Your task to perform on an android device: See recent photos Image 0: 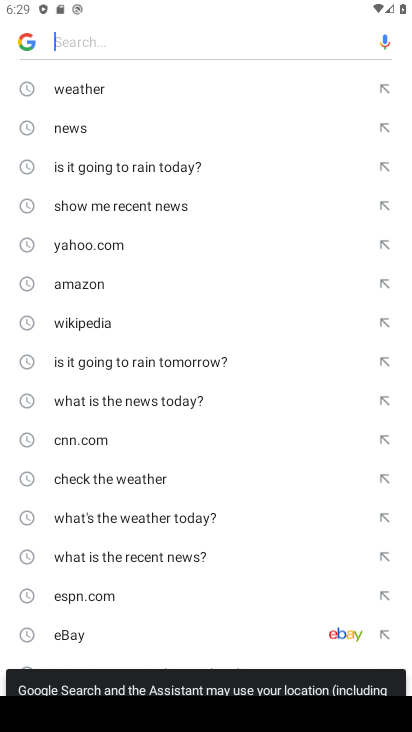
Step 0: press back button
Your task to perform on an android device: See recent photos Image 1: 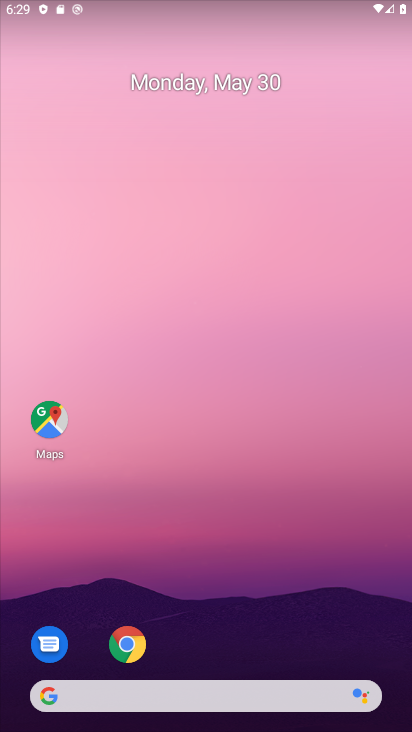
Step 1: drag from (205, 646) to (219, 66)
Your task to perform on an android device: See recent photos Image 2: 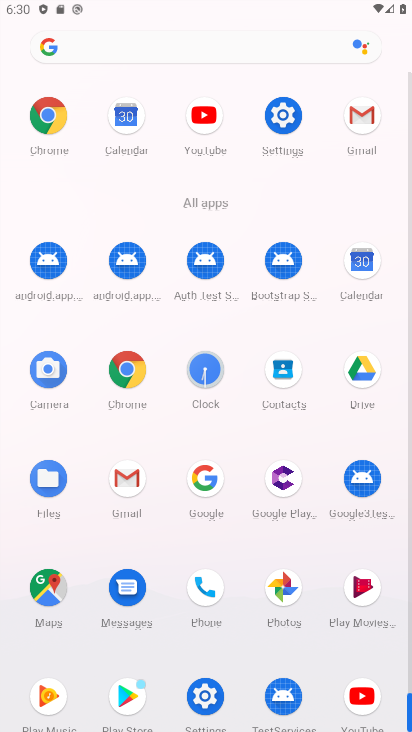
Step 2: click (278, 609)
Your task to perform on an android device: See recent photos Image 3: 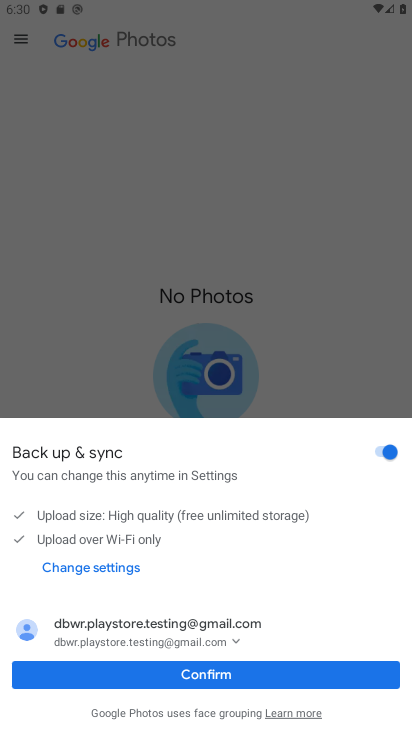
Step 3: click (217, 678)
Your task to perform on an android device: See recent photos Image 4: 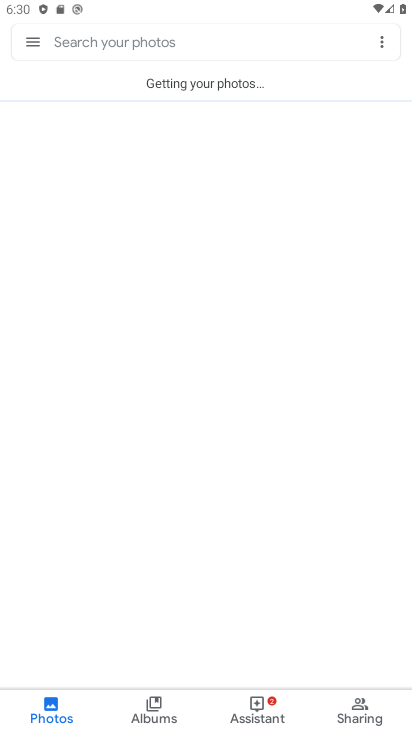
Step 4: task complete